Your task to perform on an android device: change your default location settings in chrome Image 0: 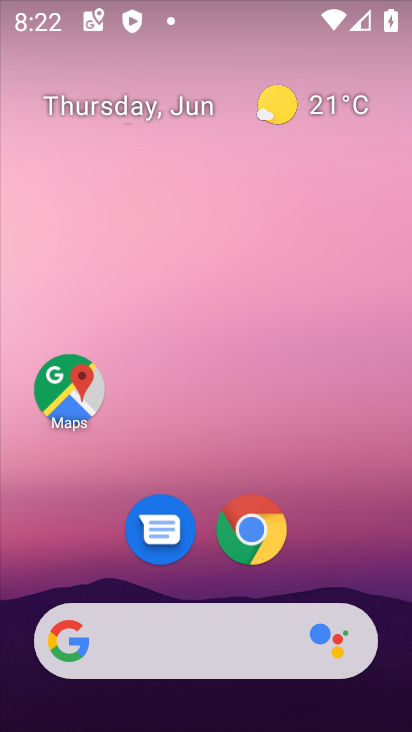
Step 0: click (257, 530)
Your task to perform on an android device: change your default location settings in chrome Image 1: 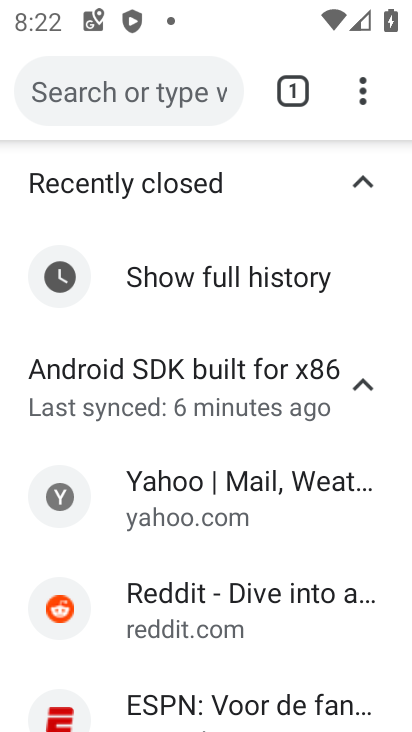
Step 1: click (362, 85)
Your task to perform on an android device: change your default location settings in chrome Image 2: 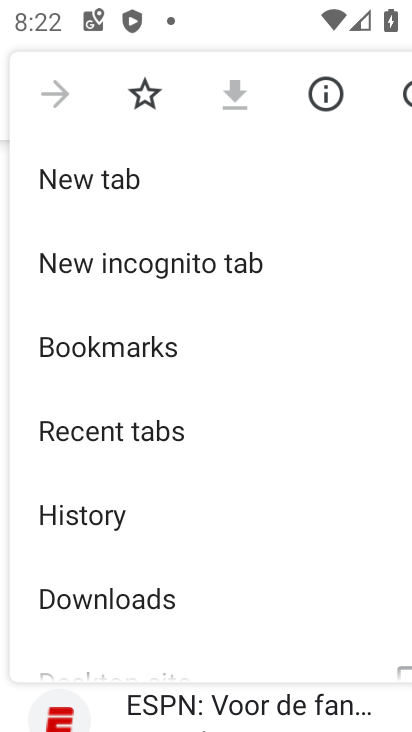
Step 2: drag from (226, 587) to (158, 241)
Your task to perform on an android device: change your default location settings in chrome Image 3: 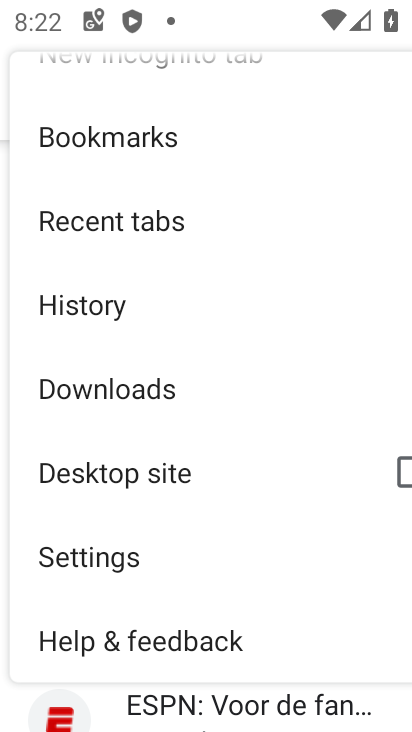
Step 3: click (104, 552)
Your task to perform on an android device: change your default location settings in chrome Image 4: 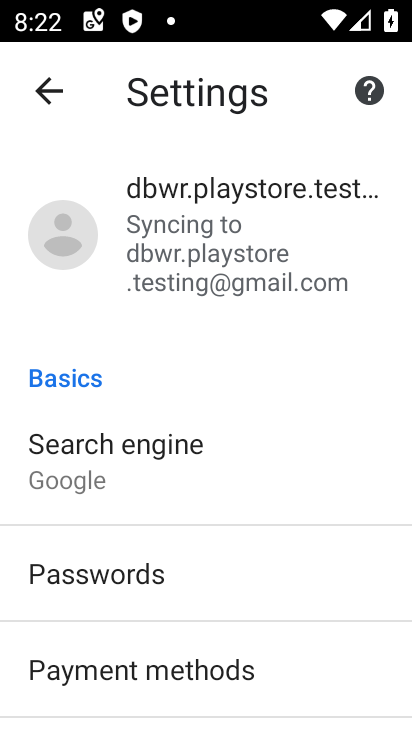
Step 4: drag from (257, 599) to (184, 240)
Your task to perform on an android device: change your default location settings in chrome Image 5: 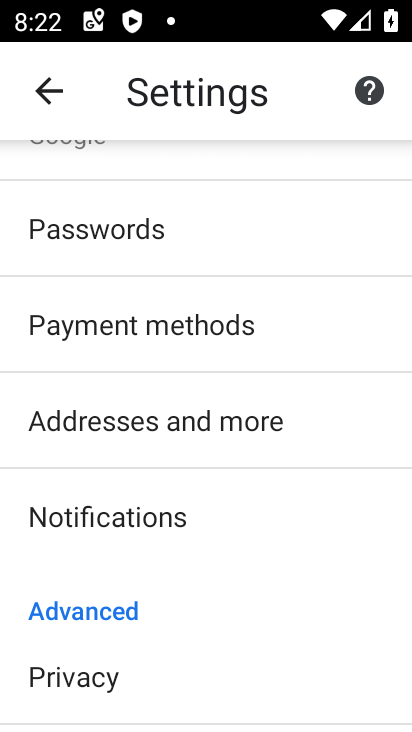
Step 5: drag from (222, 608) to (180, 301)
Your task to perform on an android device: change your default location settings in chrome Image 6: 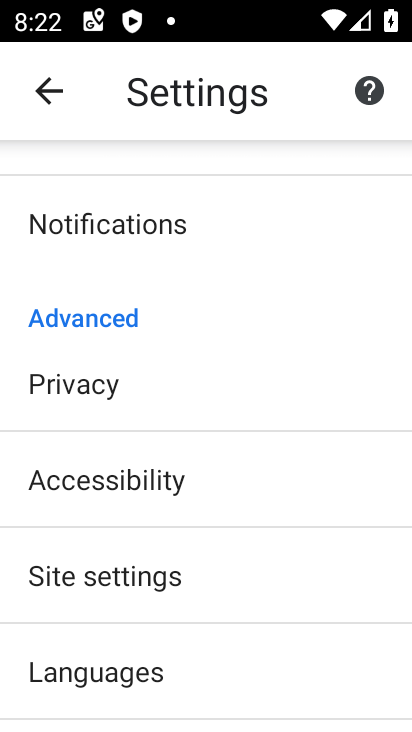
Step 6: click (128, 573)
Your task to perform on an android device: change your default location settings in chrome Image 7: 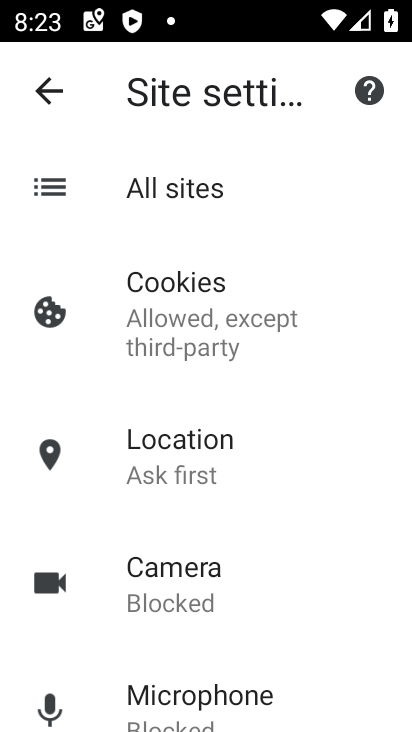
Step 7: click (189, 448)
Your task to perform on an android device: change your default location settings in chrome Image 8: 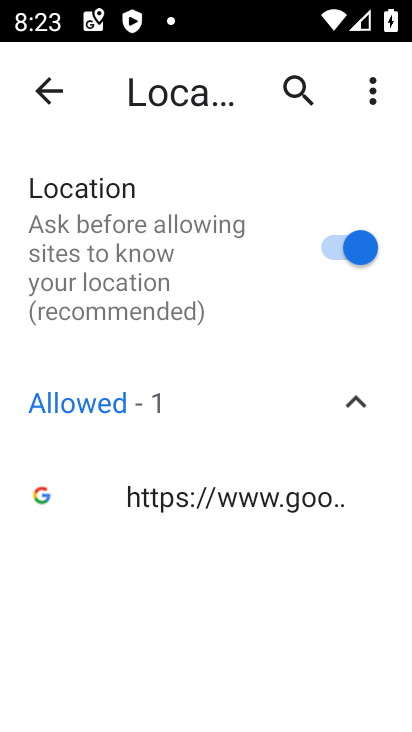
Step 8: click (362, 245)
Your task to perform on an android device: change your default location settings in chrome Image 9: 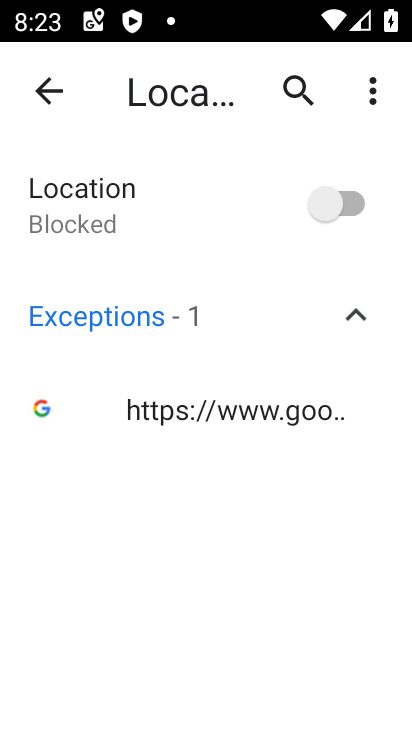
Step 9: task complete